Your task to perform on an android device: Open Chrome and go to the settings page Image 0: 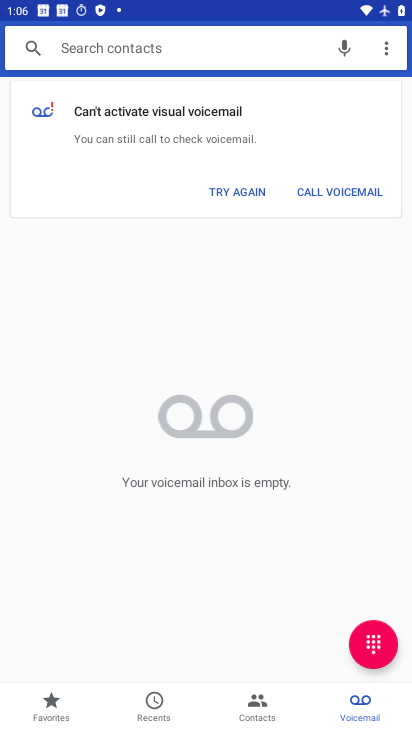
Step 0: press home button
Your task to perform on an android device: Open Chrome and go to the settings page Image 1: 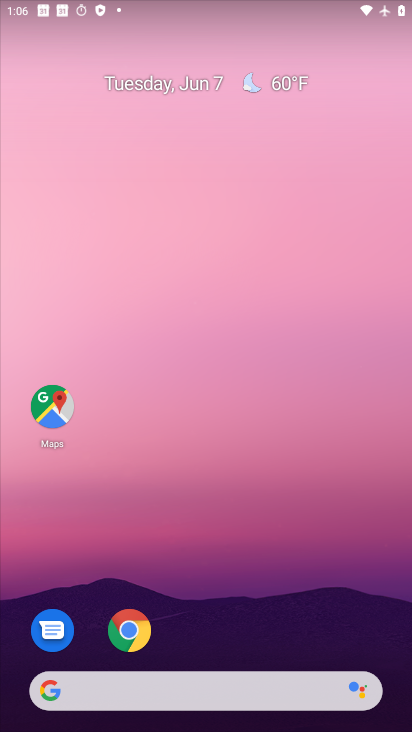
Step 1: drag from (357, 639) to (321, 133)
Your task to perform on an android device: Open Chrome and go to the settings page Image 2: 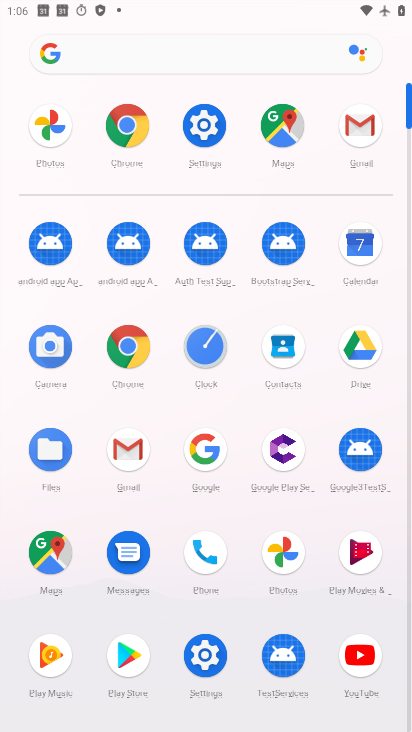
Step 2: click (134, 360)
Your task to perform on an android device: Open Chrome and go to the settings page Image 3: 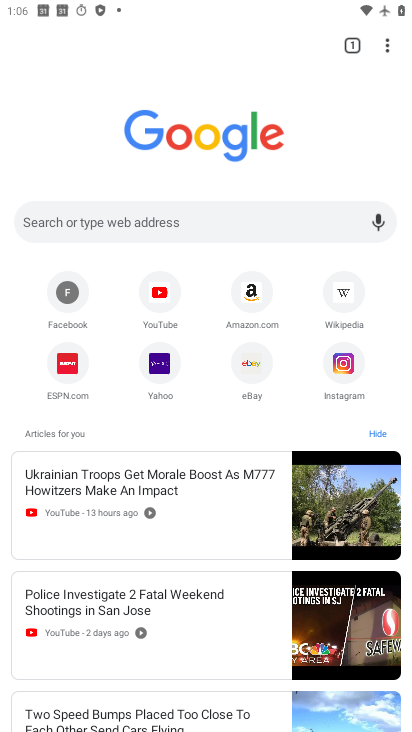
Step 3: click (389, 44)
Your task to perform on an android device: Open Chrome and go to the settings page Image 4: 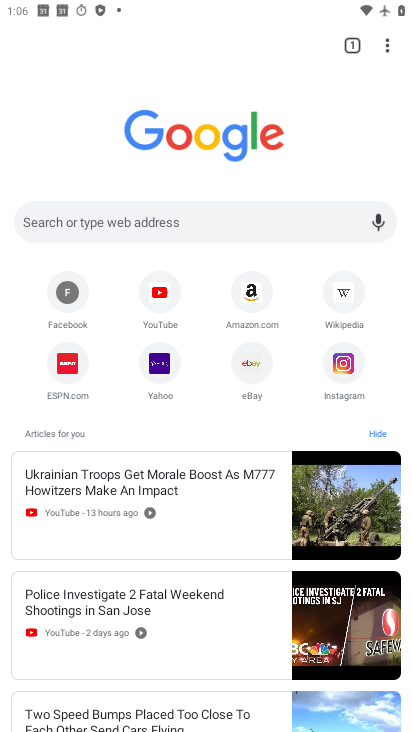
Step 4: click (389, 44)
Your task to perform on an android device: Open Chrome and go to the settings page Image 5: 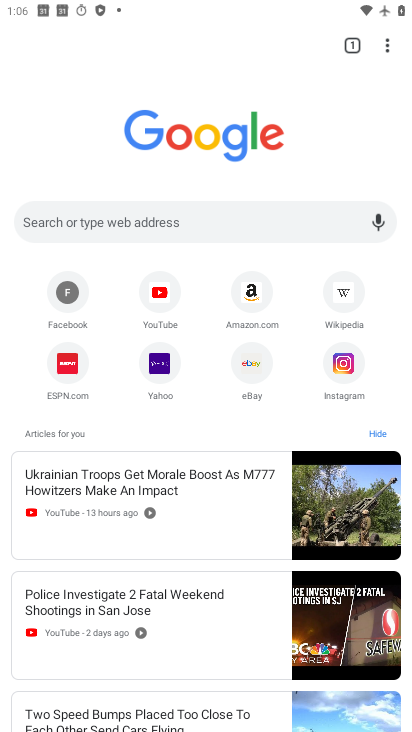
Step 5: click (386, 47)
Your task to perform on an android device: Open Chrome and go to the settings page Image 6: 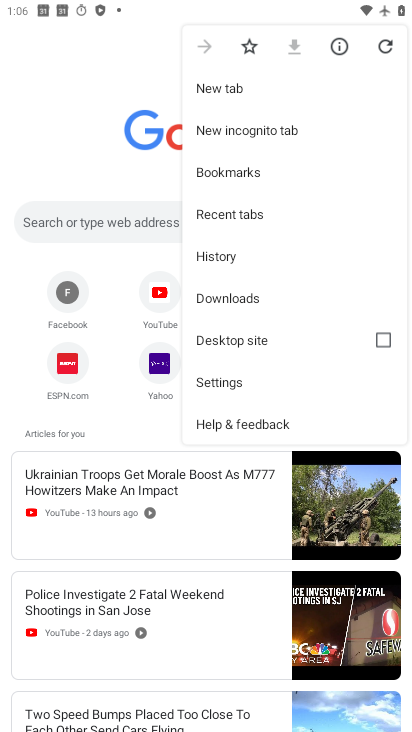
Step 6: click (248, 378)
Your task to perform on an android device: Open Chrome and go to the settings page Image 7: 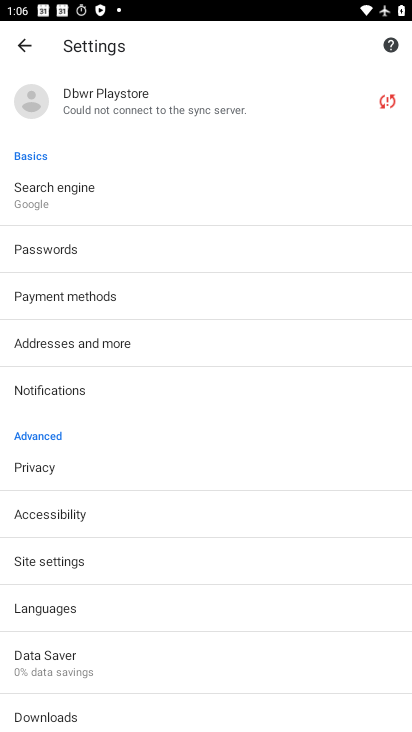
Step 7: task complete